Your task to perform on an android device: change alarm snooze length Image 0: 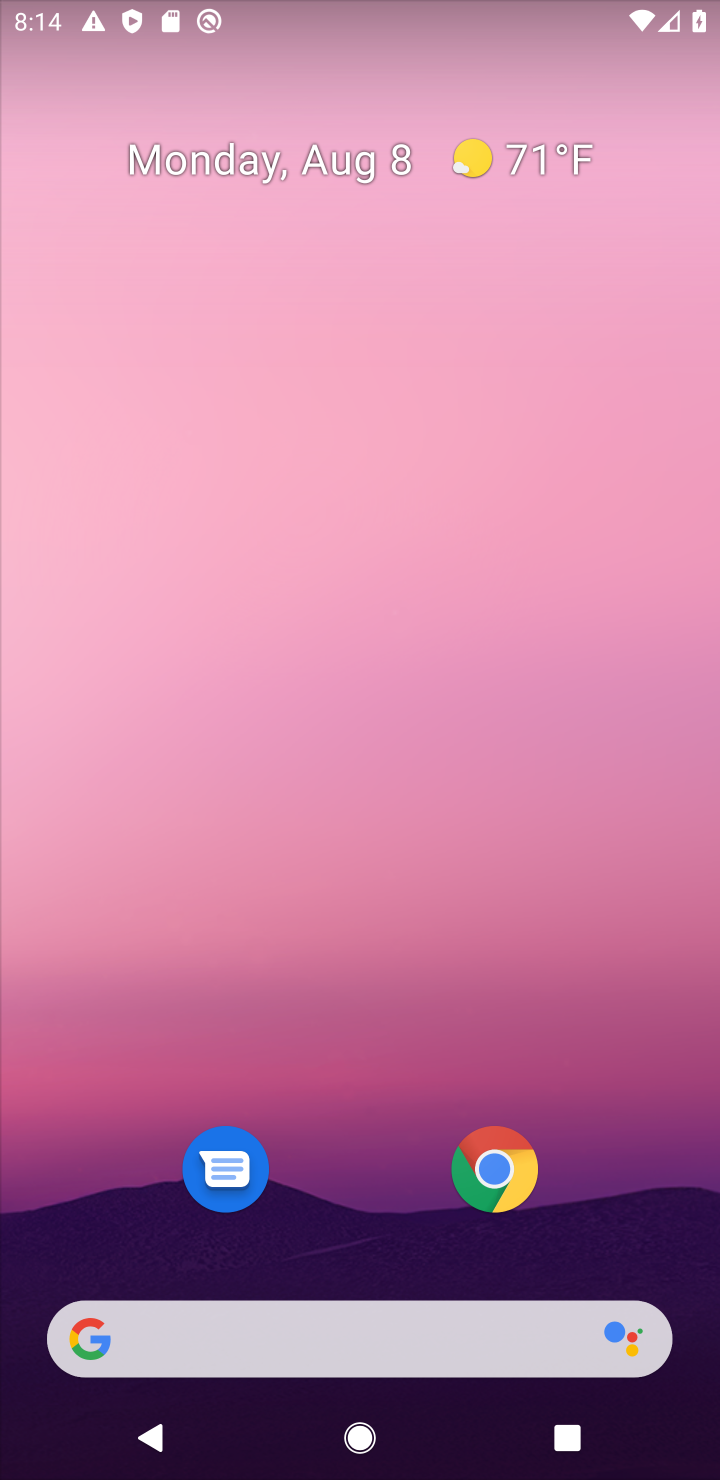
Step 0: drag from (449, 988) to (655, 1)
Your task to perform on an android device: change alarm snooze length Image 1: 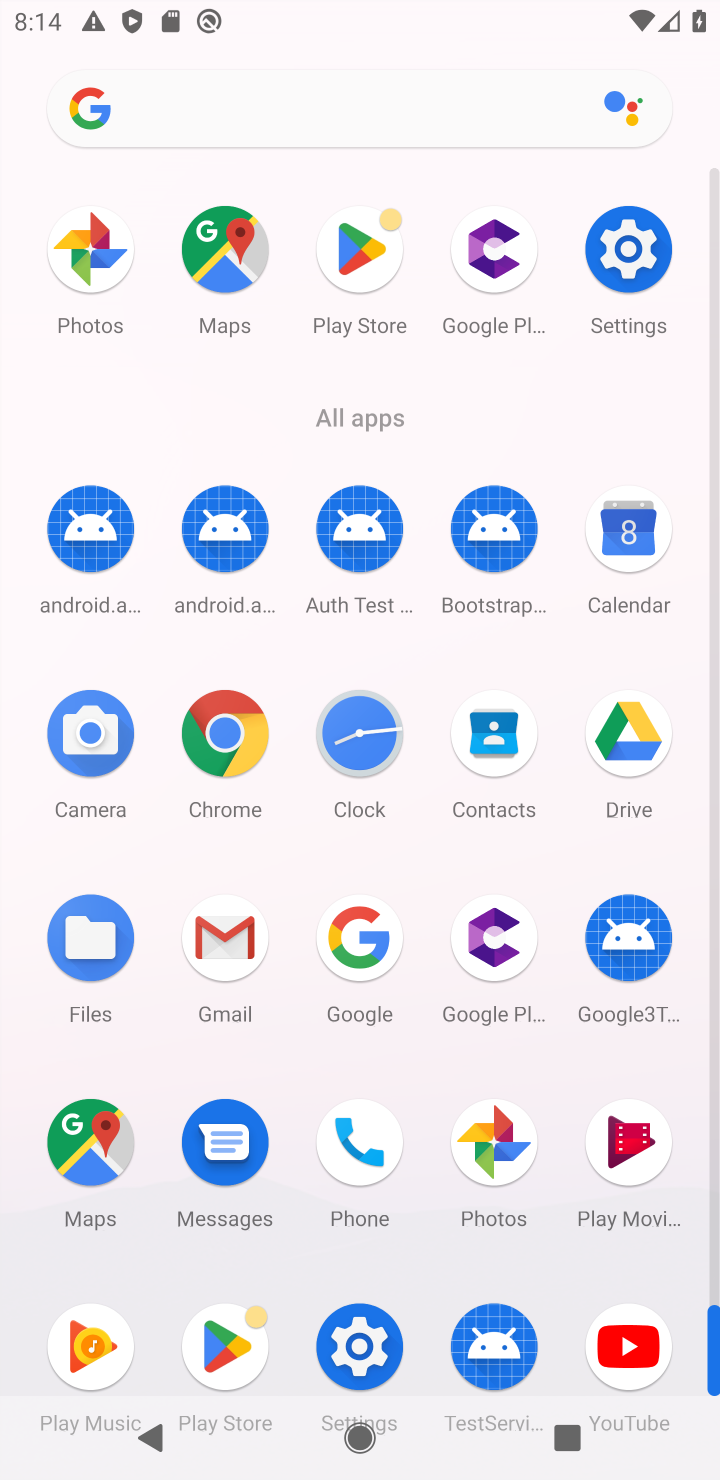
Step 1: click (362, 769)
Your task to perform on an android device: change alarm snooze length Image 2: 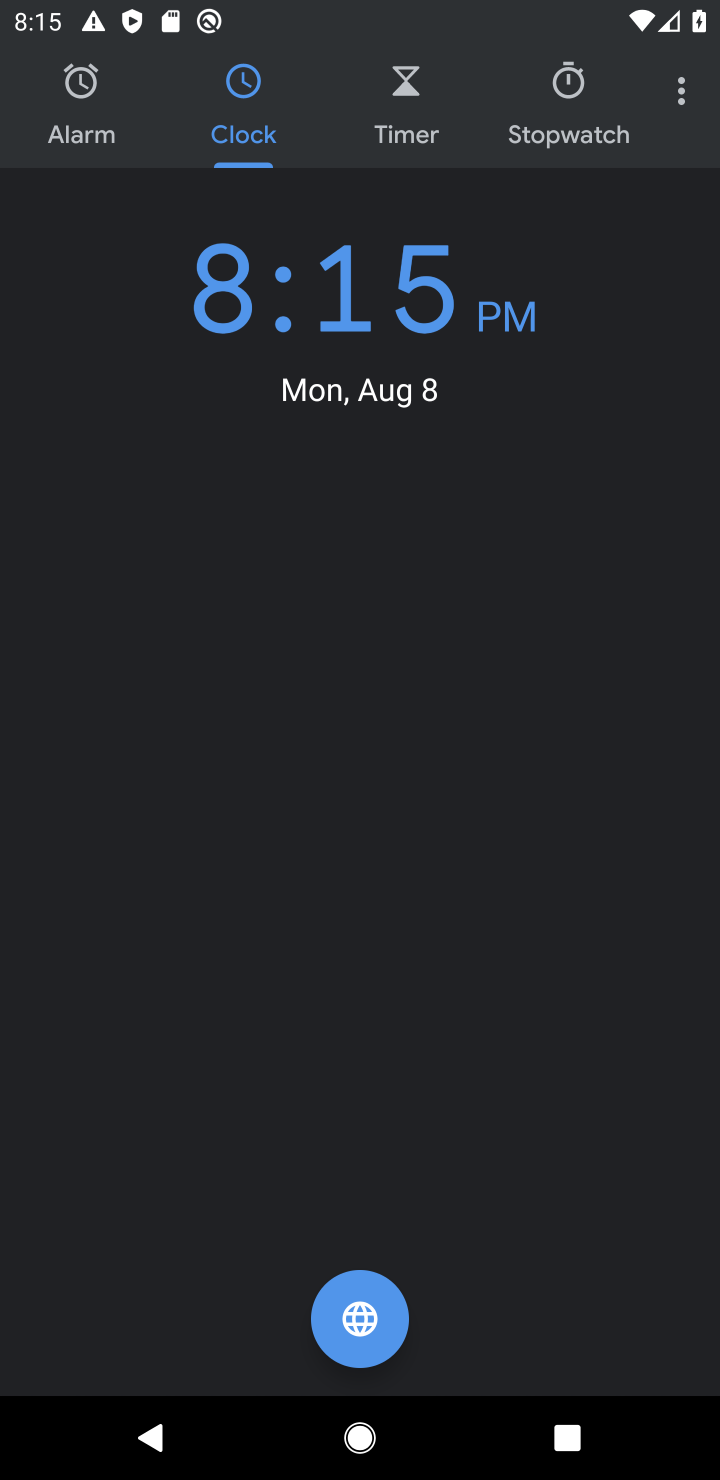
Step 2: click (679, 91)
Your task to perform on an android device: change alarm snooze length Image 3: 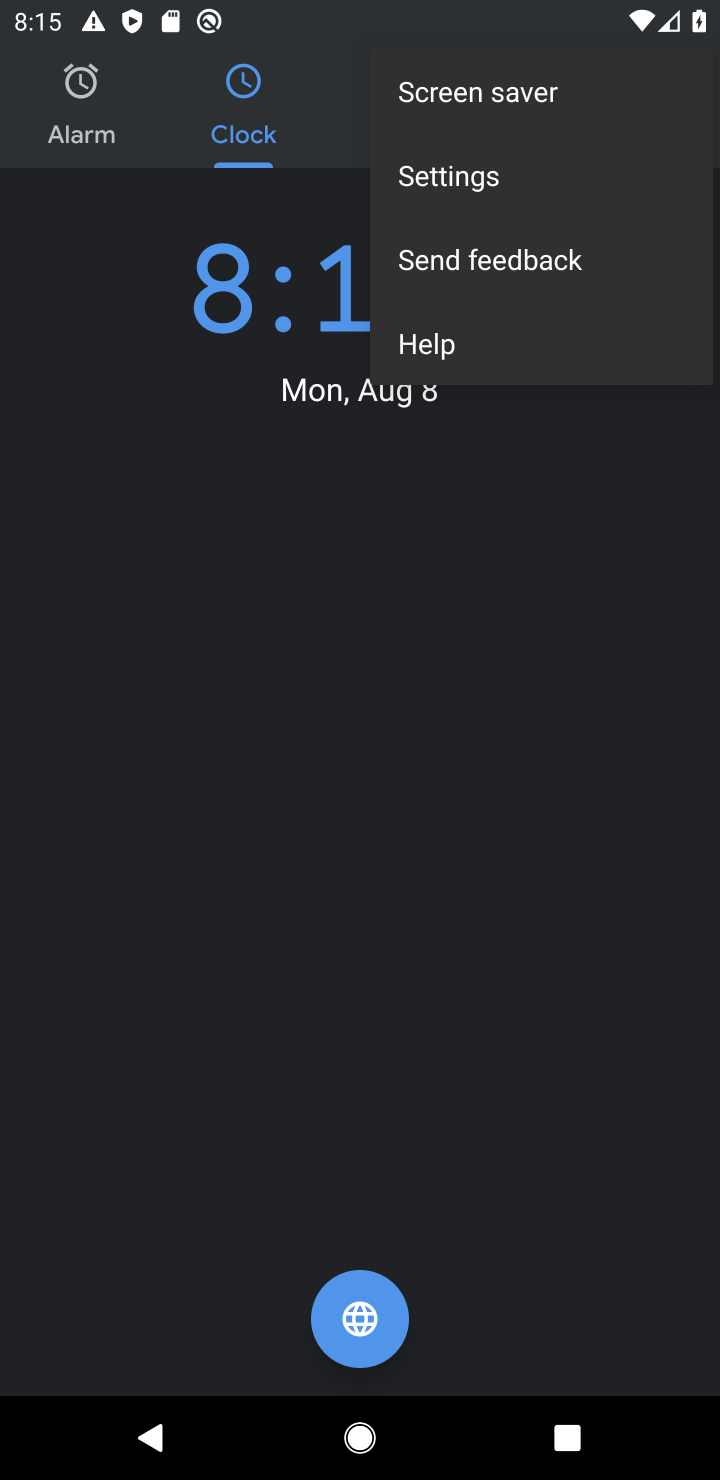
Step 3: click (539, 183)
Your task to perform on an android device: change alarm snooze length Image 4: 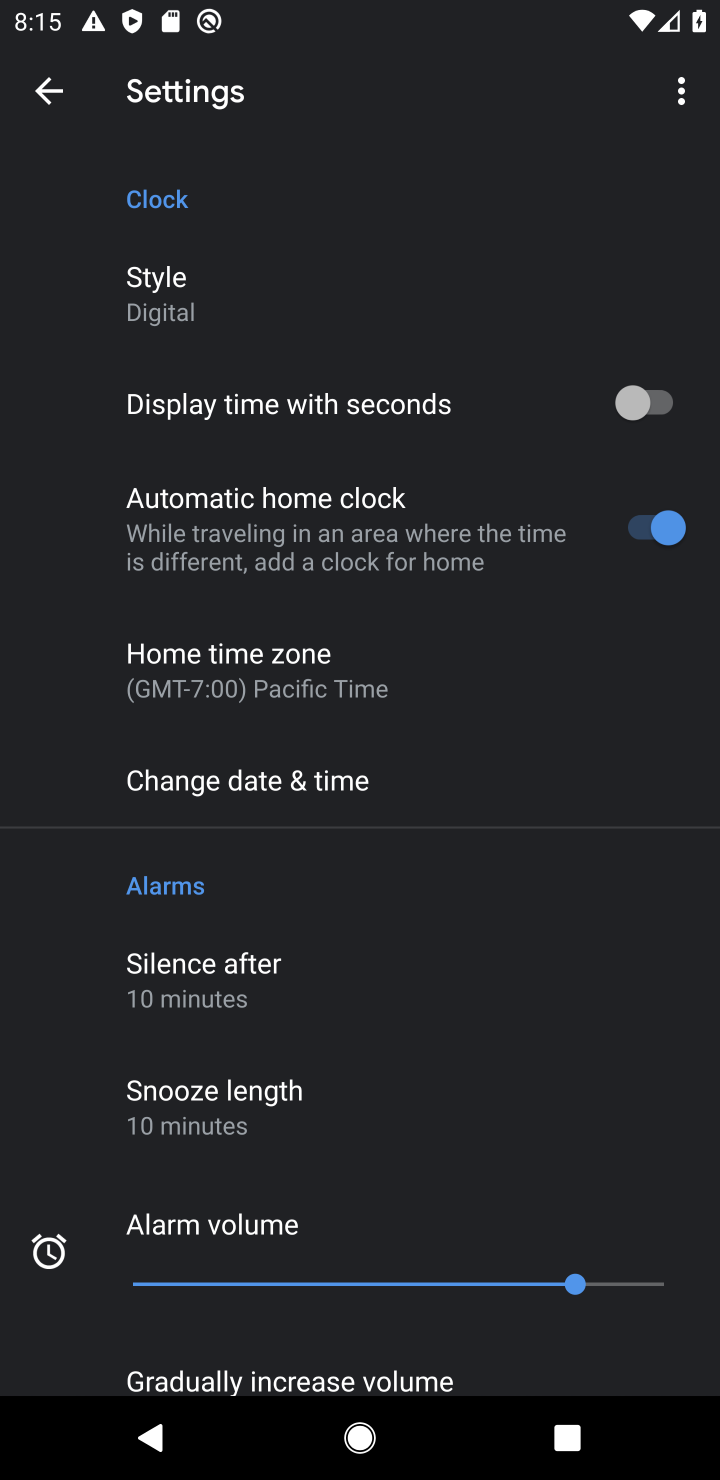
Step 4: click (219, 1097)
Your task to perform on an android device: change alarm snooze length Image 5: 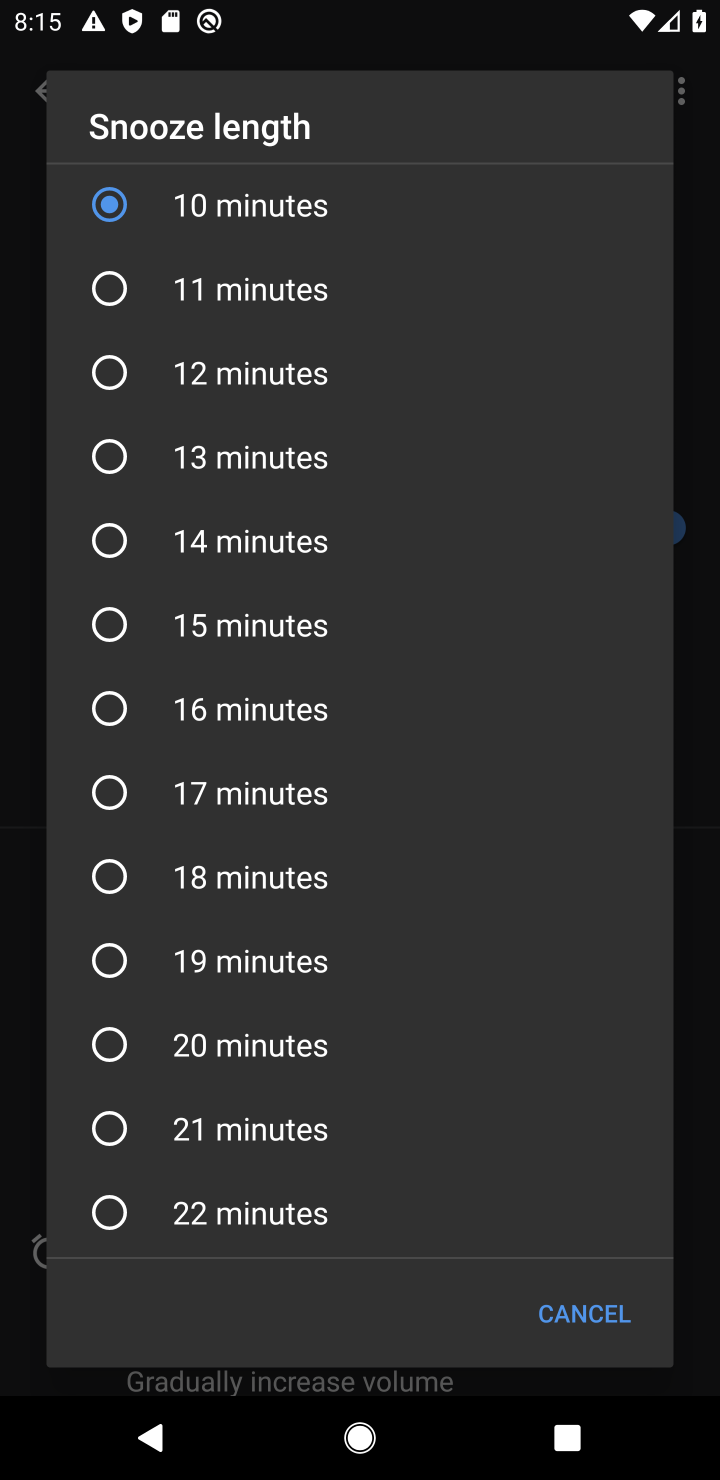
Step 5: click (137, 458)
Your task to perform on an android device: change alarm snooze length Image 6: 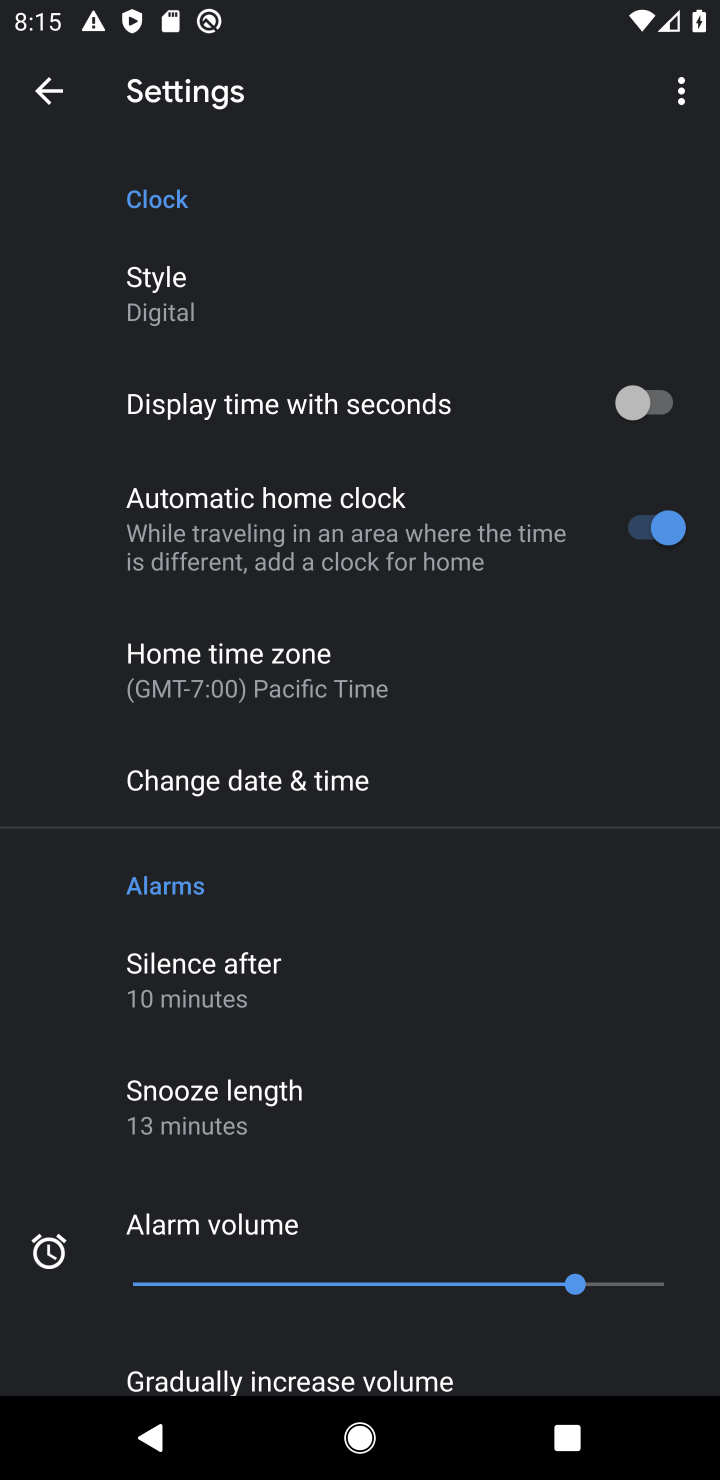
Step 6: task complete